Your task to perform on an android device: turn off location history Image 0: 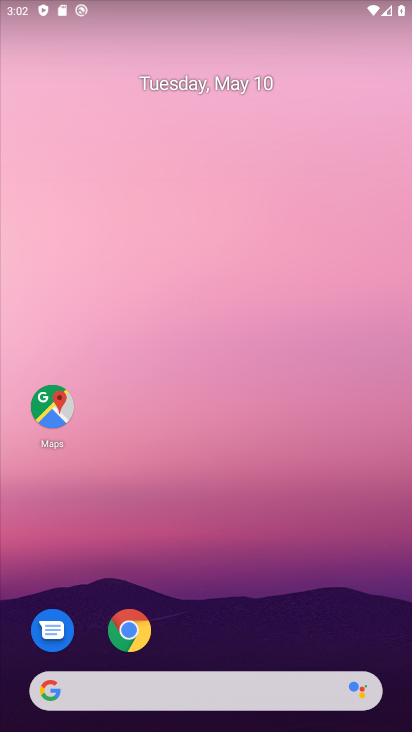
Step 0: drag from (246, 645) to (357, 19)
Your task to perform on an android device: turn off location history Image 1: 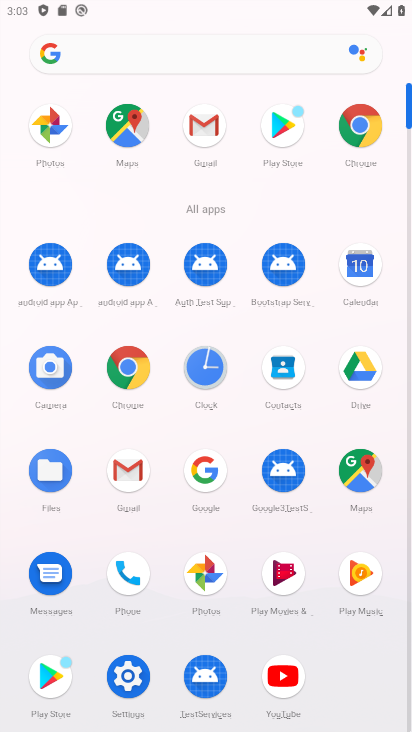
Step 1: click (107, 636)
Your task to perform on an android device: turn off location history Image 2: 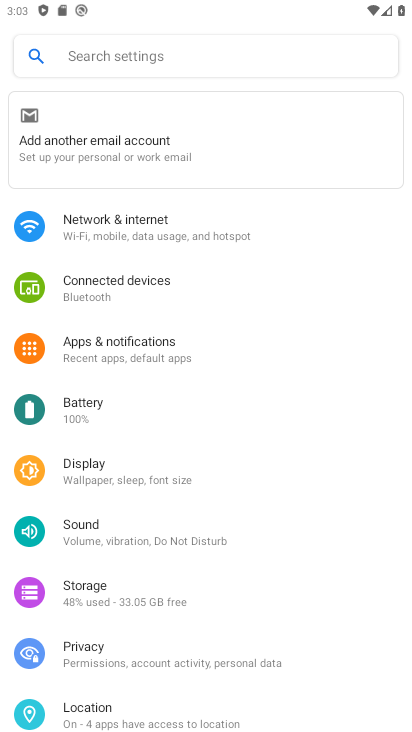
Step 2: click (77, 694)
Your task to perform on an android device: turn off location history Image 3: 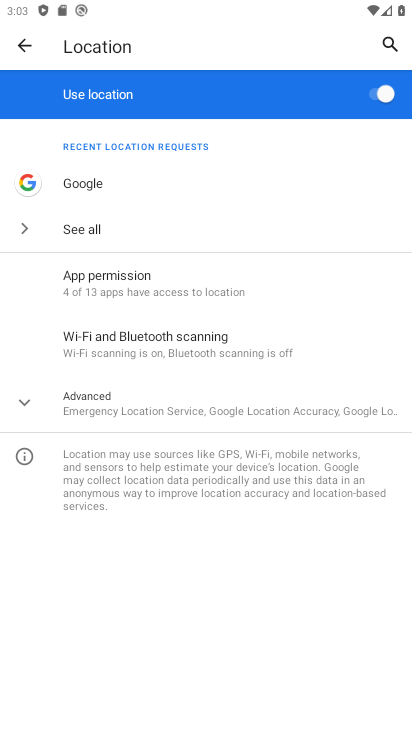
Step 3: click (204, 426)
Your task to perform on an android device: turn off location history Image 4: 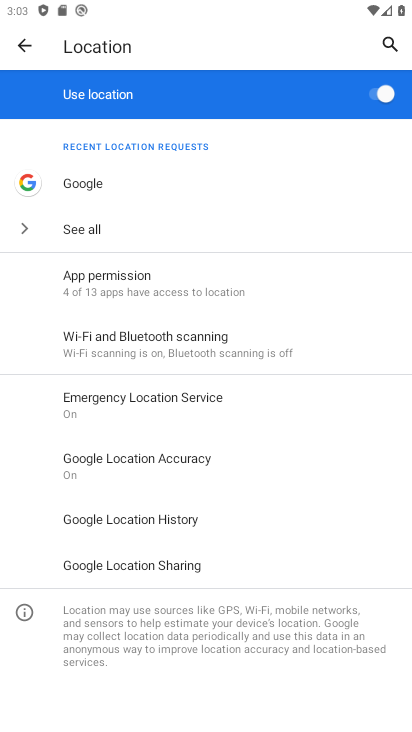
Step 4: click (245, 516)
Your task to perform on an android device: turn off location history Image 5: 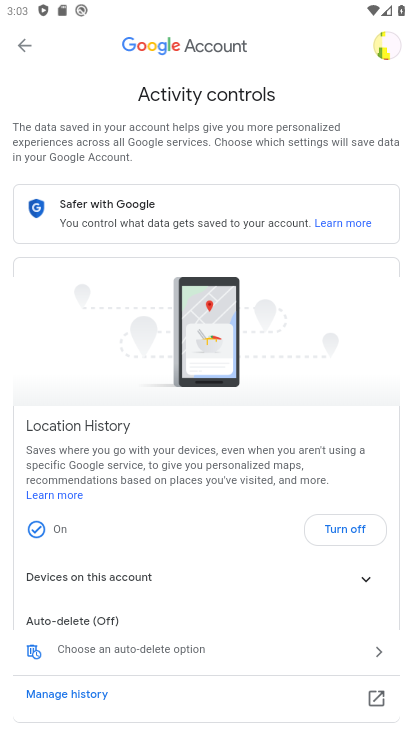
Step 5: click (371, 532)
Your task to perform on an android device: turn off location history Image 6: 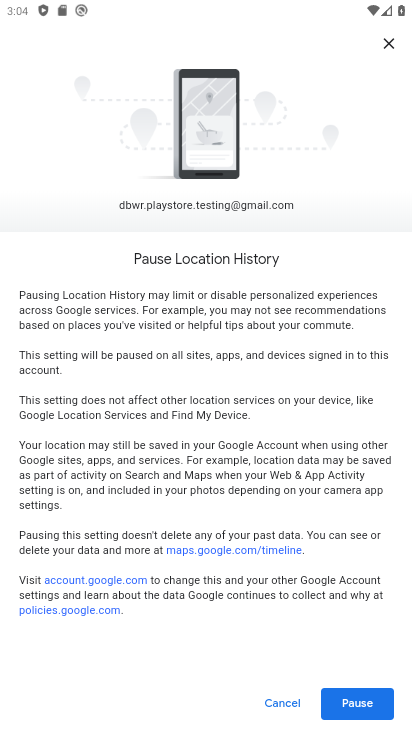
Step 6: click (363, 700)
Your task to perform on an android device: turn off location history Image 7: 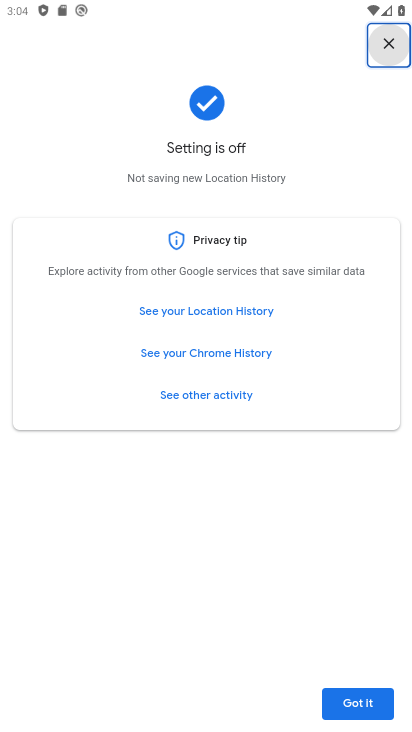
Step 7: click (354, 695)
Your task to perform on an android device: turn off location history Image 8: 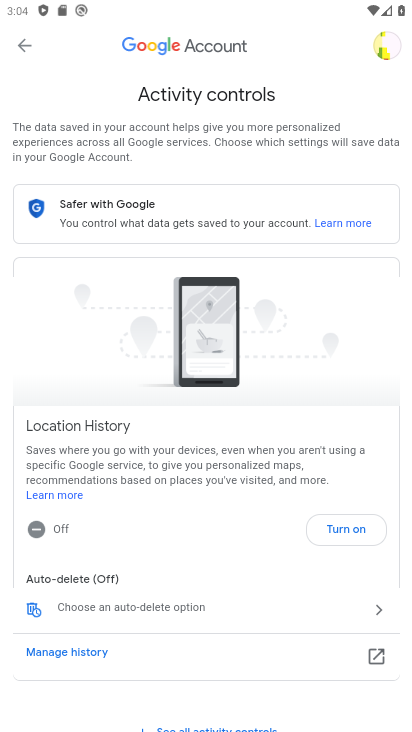
Step 8: task complete